Your task to perform on an android device: Go to accessibility settings Image 0: 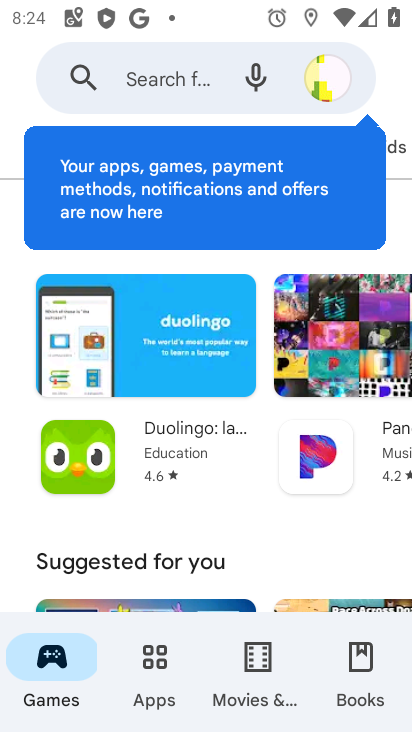
Step 0: press home button
Your task to perform on an android device: Go to accessibility settings Image 1: 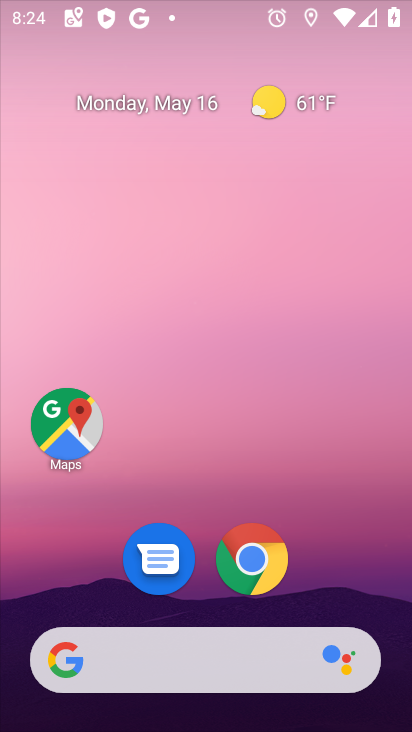
Step 1: drag from (337, 589) to (318, 122)
Your task to perform on an android device: Go to accessibility settings Image 2: 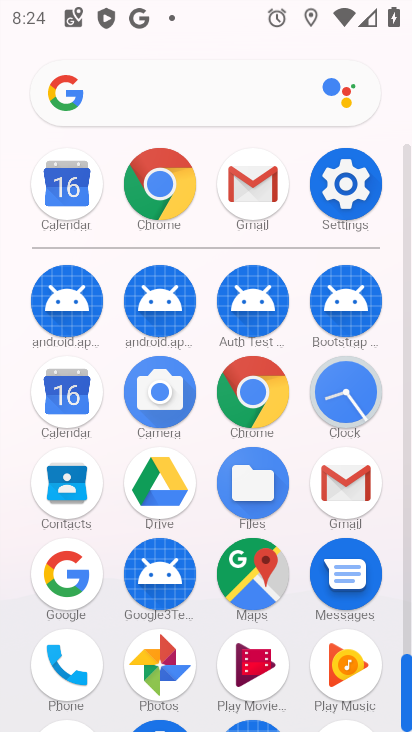
Step 2: click (334, 169)
Your task to perform on an android device: Go to accessibility settings Image 3: 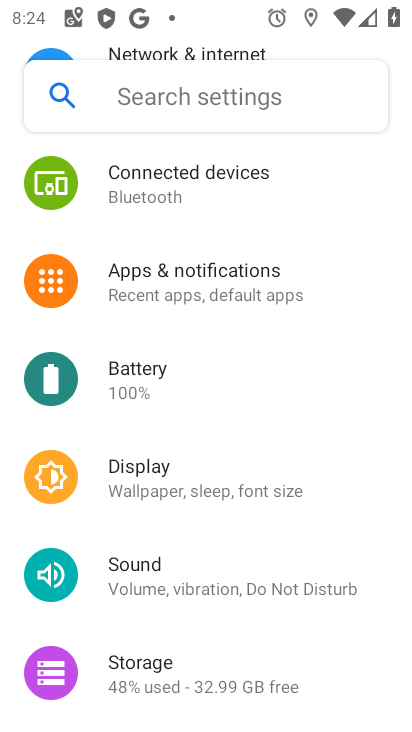
Step 3: drag from (282, 569) to (299, 177)
Your task to perform on an android device: Go to accessibility settings Image 4: 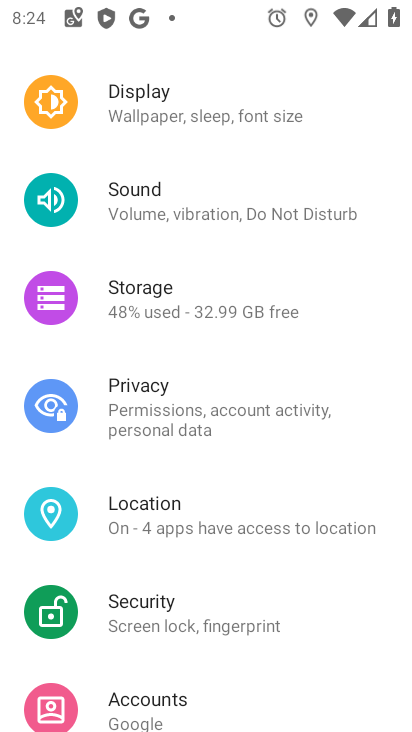
Step 4: drag from (310, 593) to (330, 142)
Your task to perform on an android device: Go to accessibility settings Image 5: 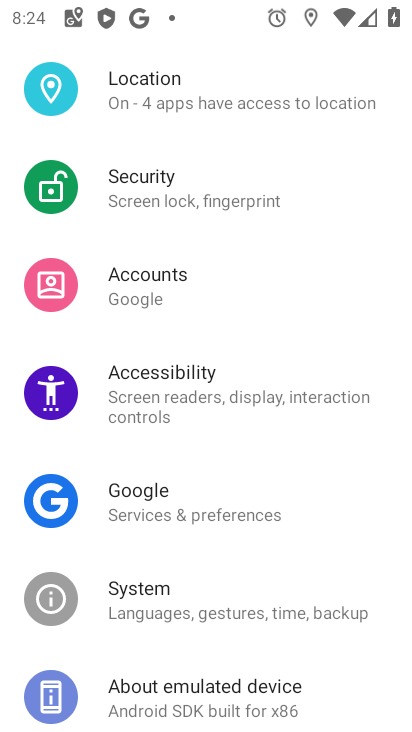
Step 5: click (268, 421)
Your task to perform on an android device: Go to accessibility settings Image 6: 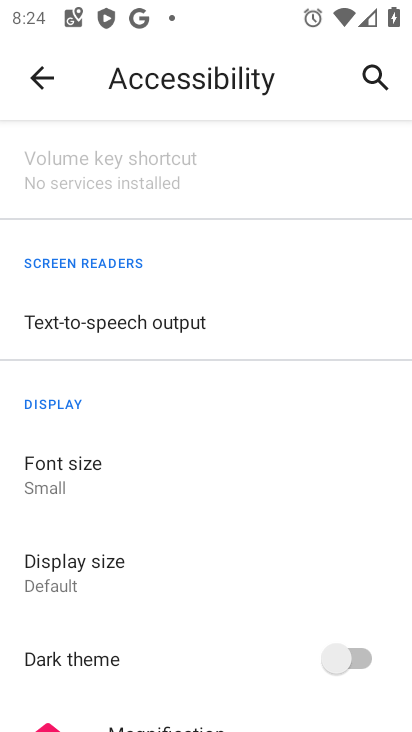
Step 6: task complete